Your task to perform on an android device: install app "Spotify" Image 0: 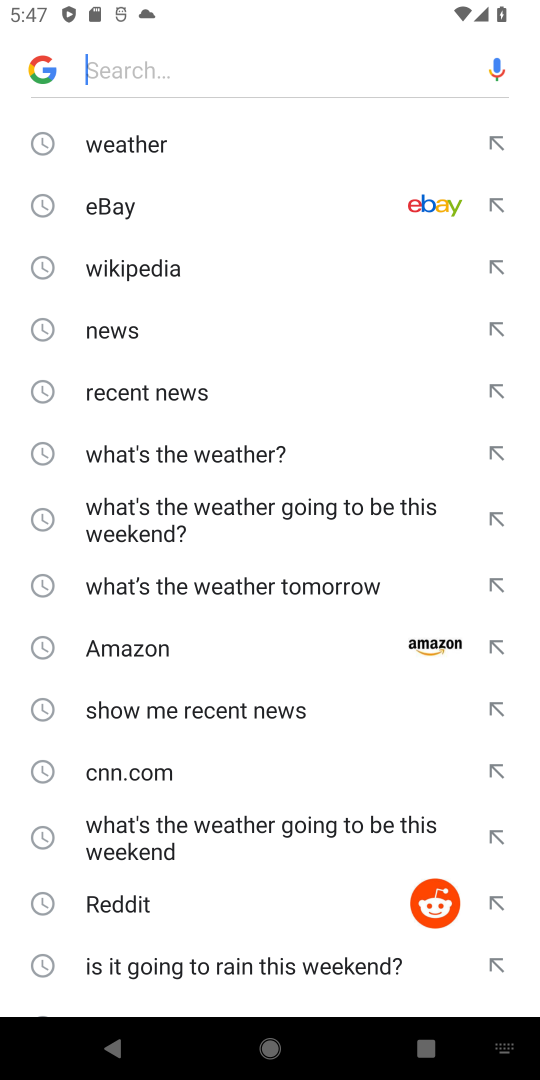
Step 0: press home button
Your task to perform on an android device: install app "Spotify" Image 1: 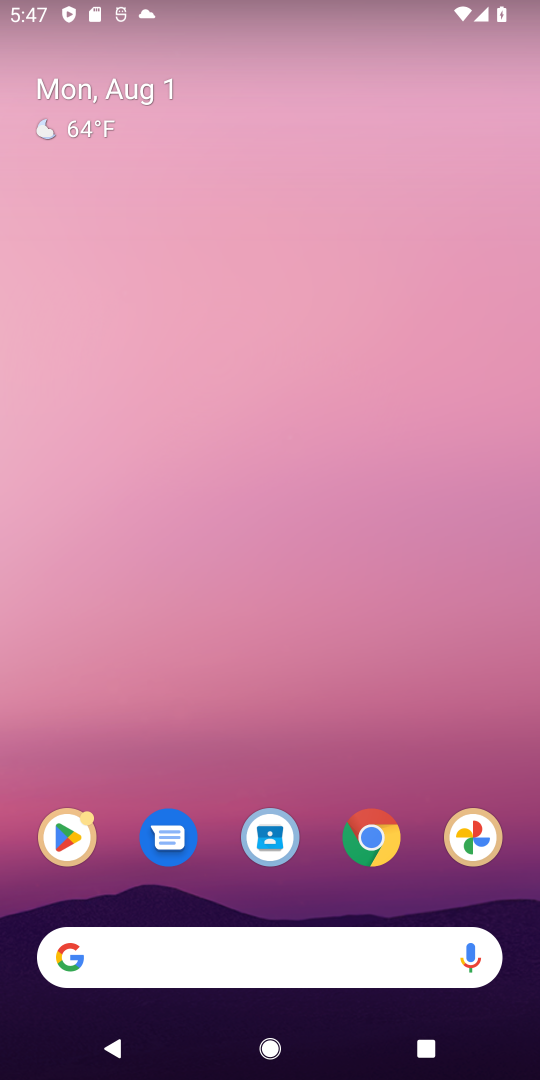
Step 1: click (81, 830)
Your task to perform on an android device: install app "Spotify" Image 2: 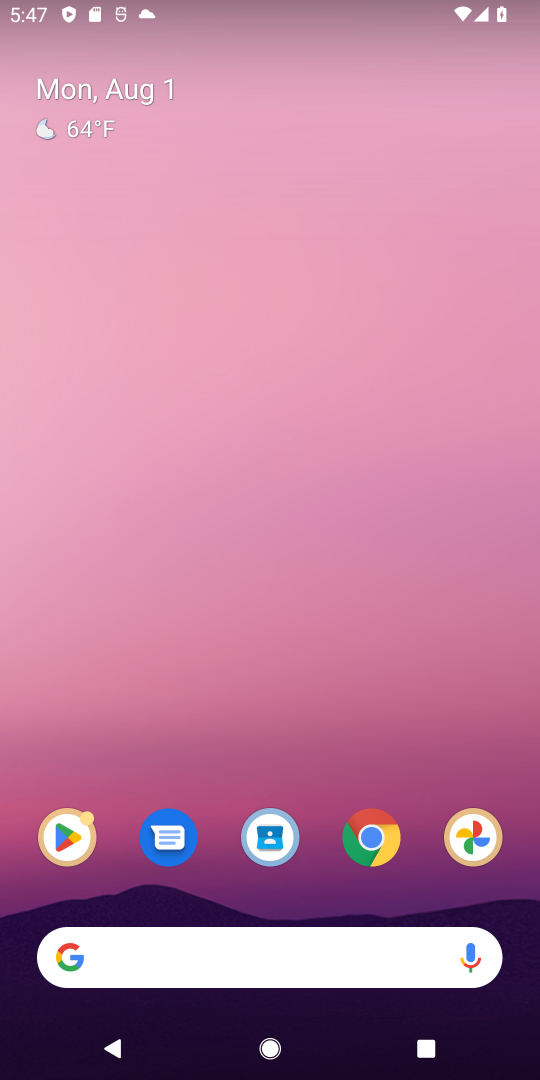
Step 2: click (81, 830)
Your task to perform on an android device: install app "Spotify" Image 3: 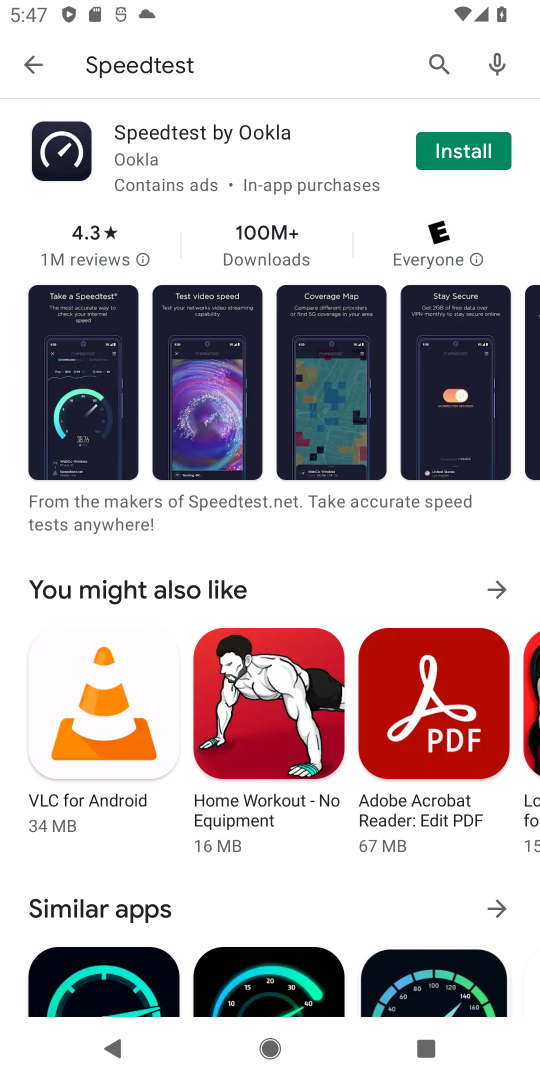
Step 3: click (434, 55)
Your task to perform on an android device: install app "Spotify" Image 4: 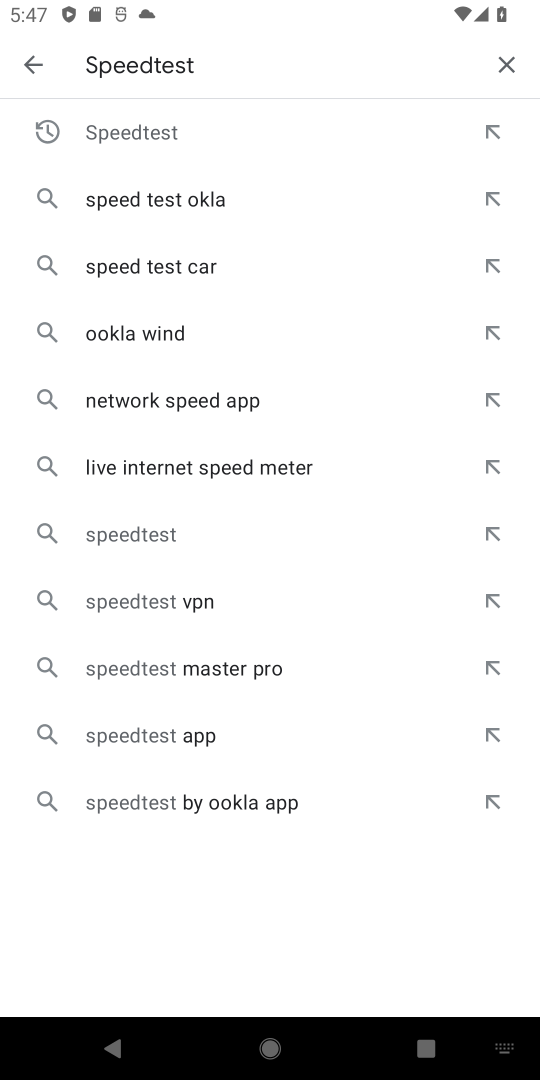
Step 4: click (503, 64)
Your task to perform on an android device: install app "Spotify" Image 5: 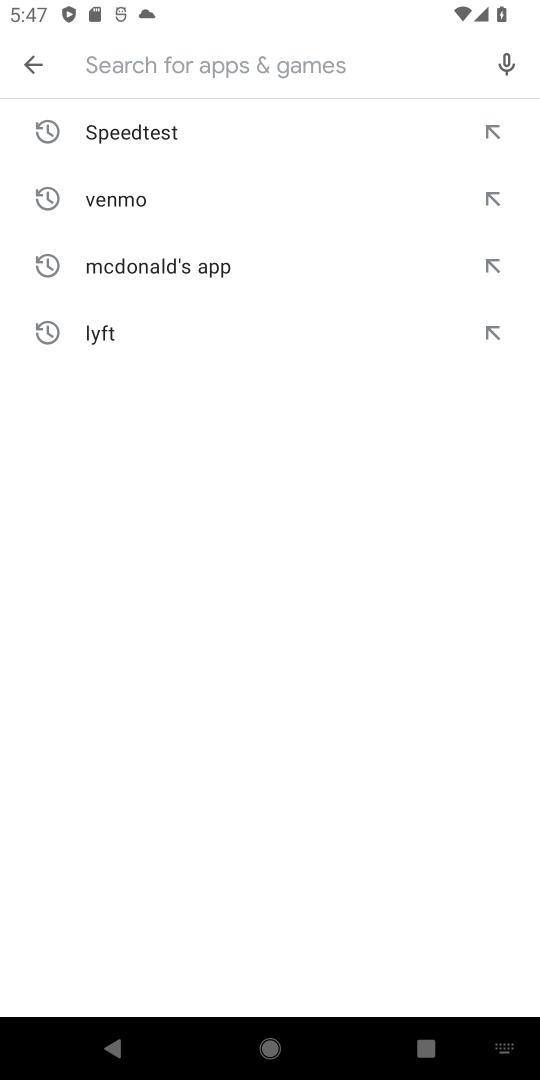
Step 5: type "Spotify"
Your task to perform on an android device: install app "Spotify" Image 6: 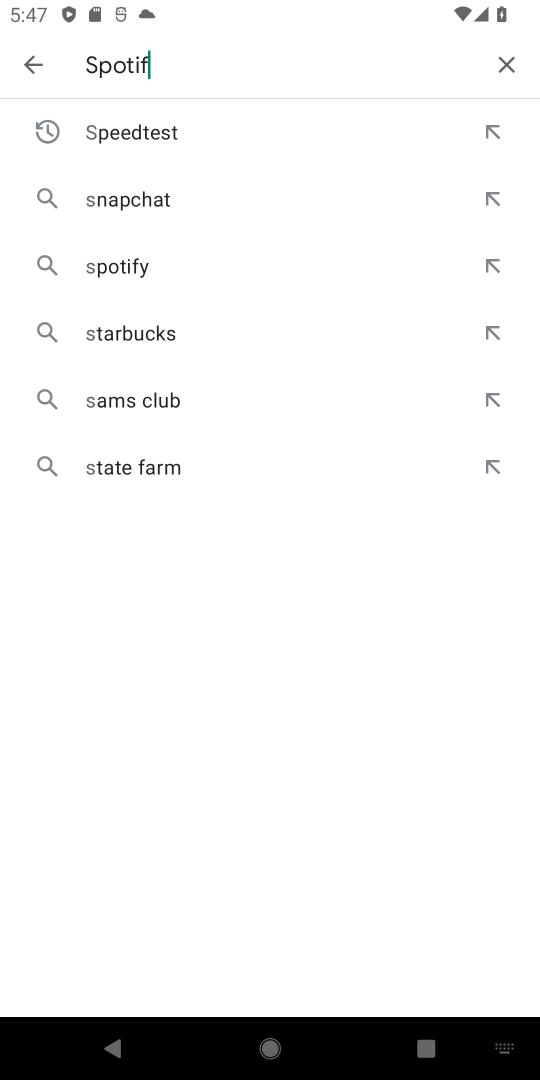
Step 6: type ""
Your task to perform on an android device: install app "Spotify" Image 7: 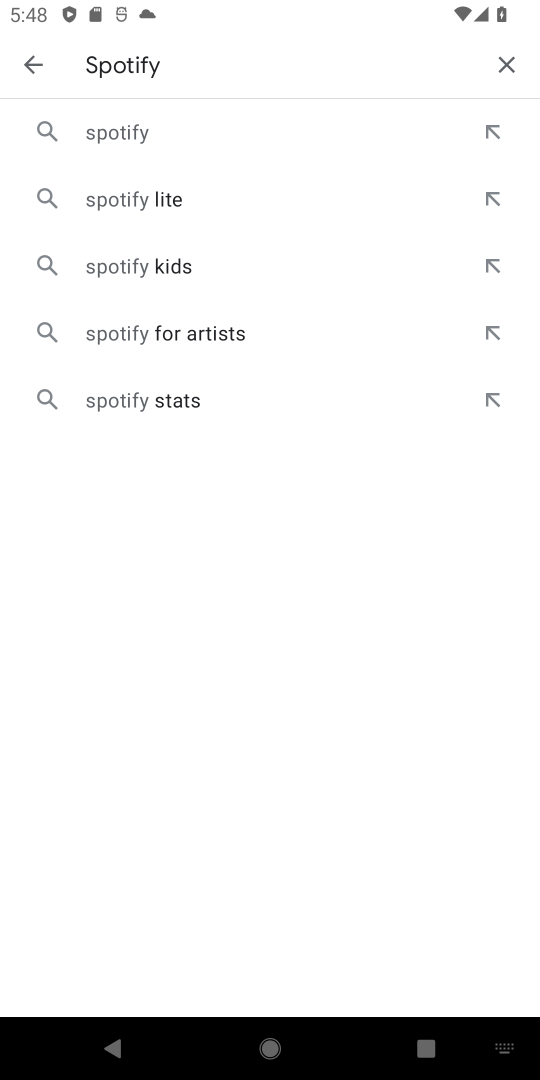
Step 7: click (226, 140)
Your task to perform on an android device: install app "Spotify" Image 8: 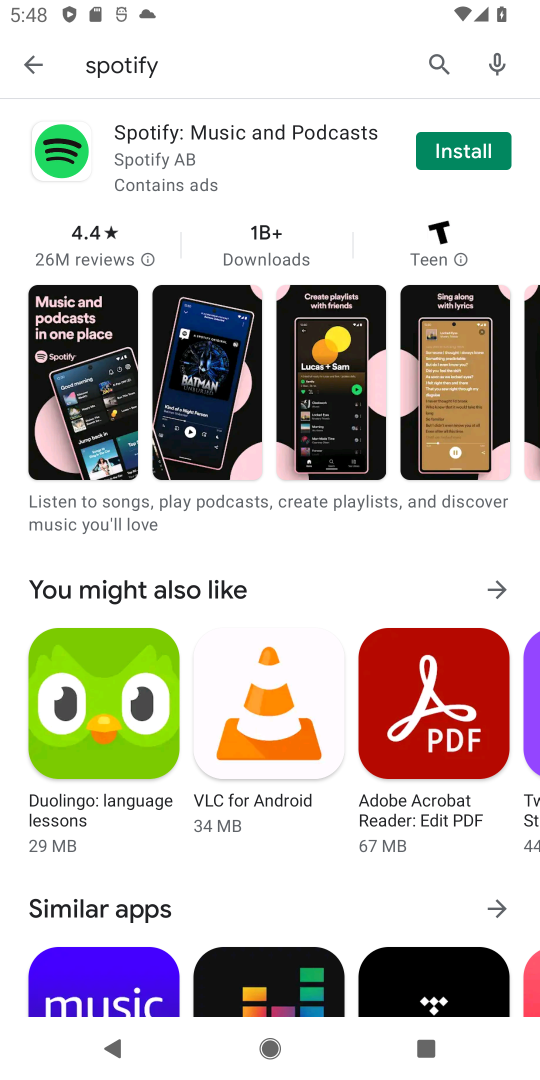
Step 8: click (433, 139)
Your task to perform on an android device: install app "Spotify" Image 9: 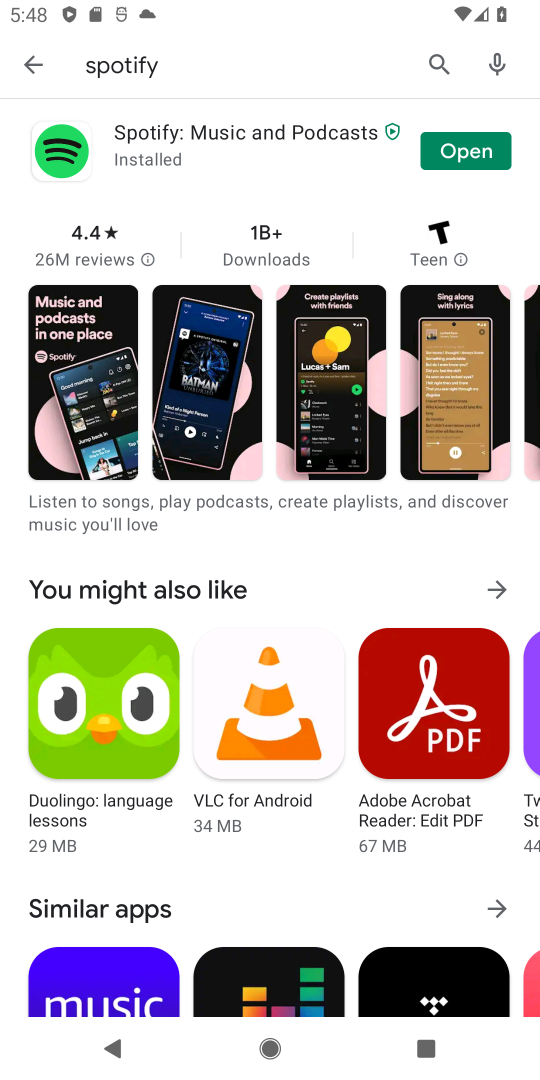
Step 9: task complete